Your task to perform on an android device: Open Yahoo.com Image 0: 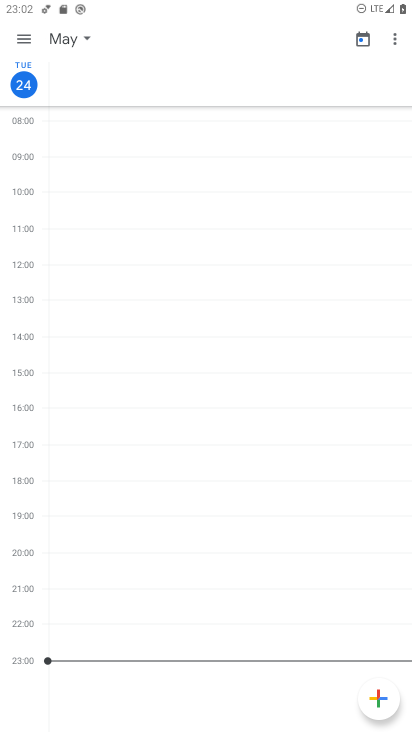
Step 0: press home button
Your task to perform on an android device: Open Yahoo.com Image 1: 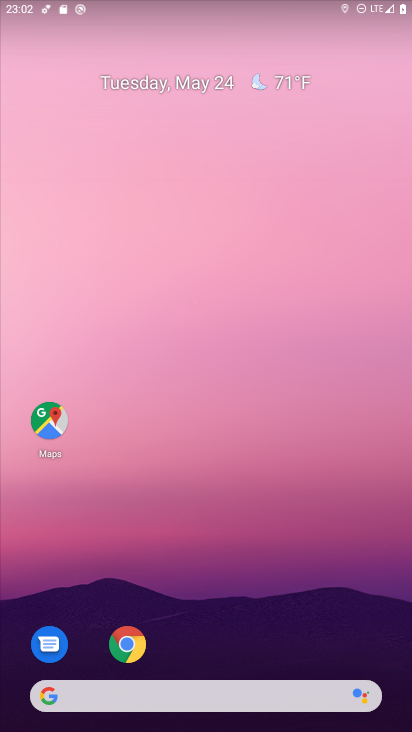
Step 1: click (131, 649)
Your task to perform on an android device: Open Yahoo.com Image 2: 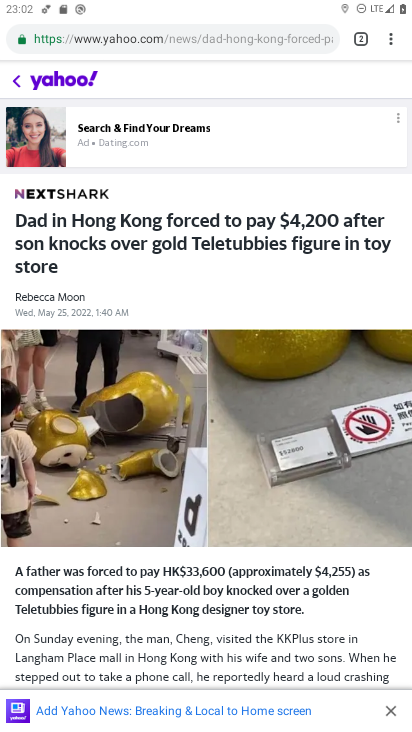
Step 2: click (390, 41)
Your task to perform on an android device: Open Yahoo.com Image 3: 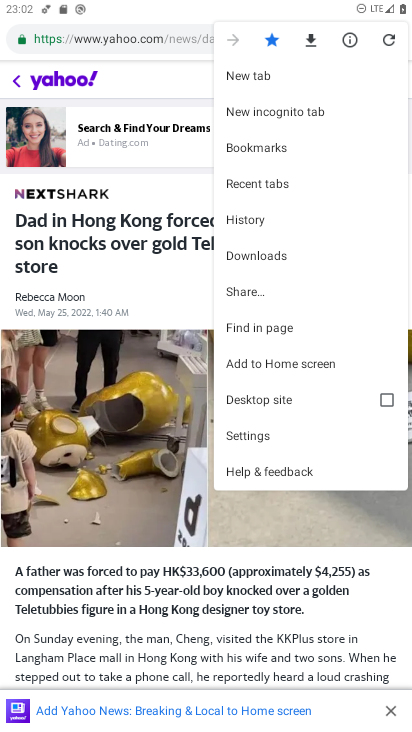
Step 3: click (172, 190)
Your task to perform on an android device: Open Yahoo.com Image 4: 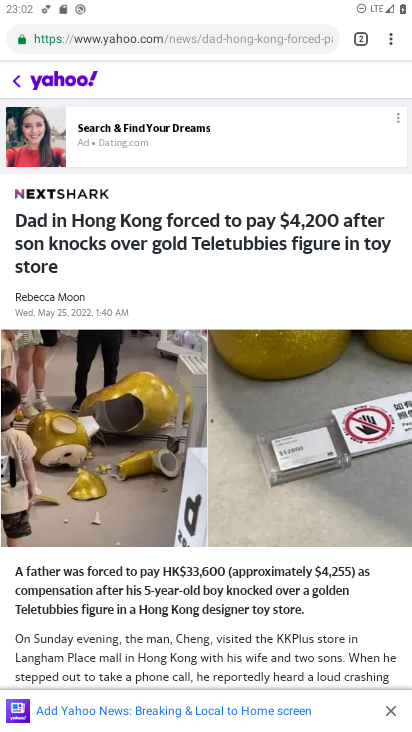
Step 4: task complete